Your task to perform on an android device: turn on location history Image 0: 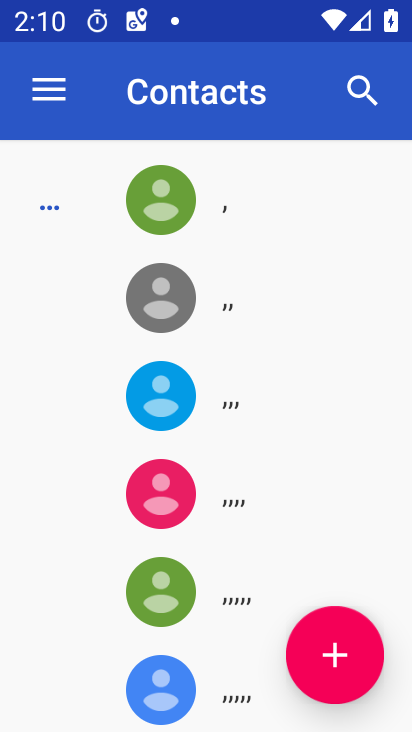
Step 0: press home button
Your task to perform on an android device: turn on location history Image 1: 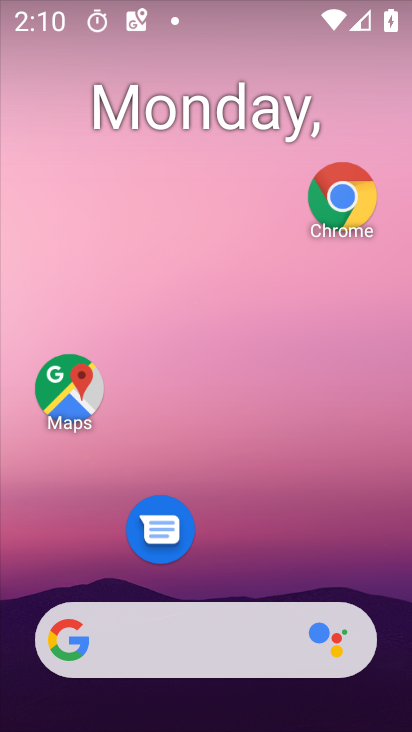
Step 1: drag from (241, 601) to (185, 85)
Your task to perform on an android device: turn on location history Image 2: 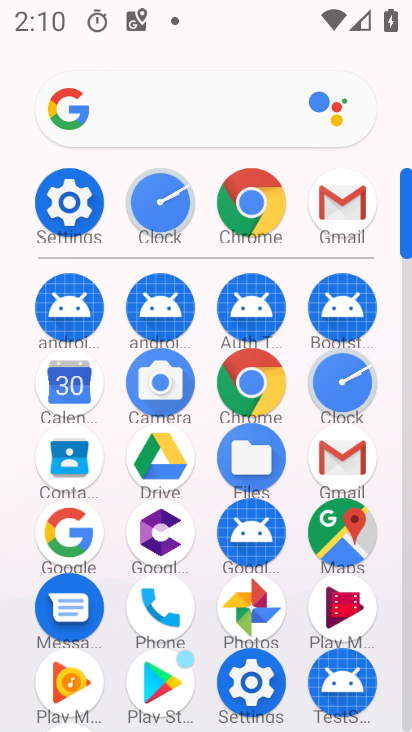
Step 2: click (71, 209)
Your task to perform on an android device: turn on location history Image 3: 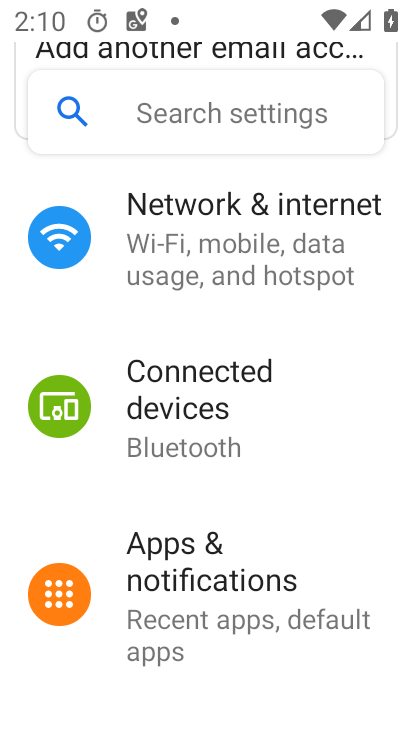
Step 3: drag from (190, 586) to (129, 148)
Your task to perform on an android device: turn on location history Image 4: 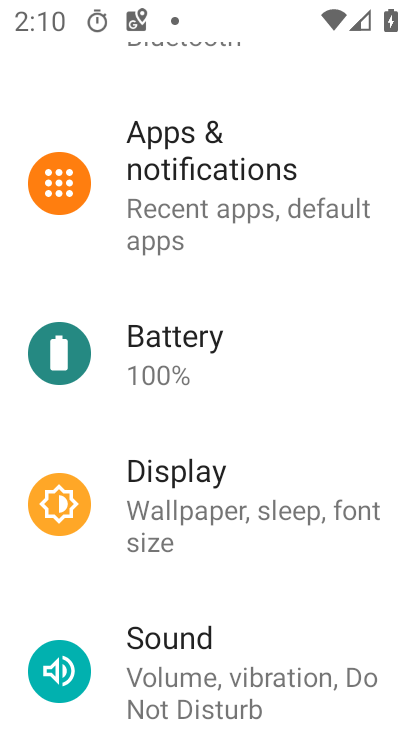
Step 4: drag from (239, 688) to (209, 188)
Your task to perform on an android device: turn on location history Image 5: 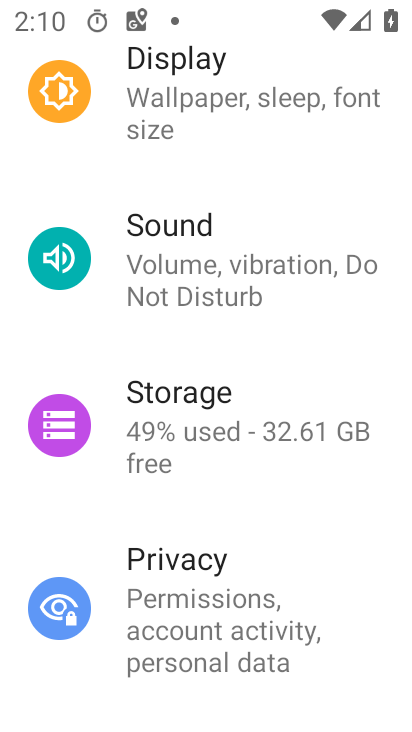
Step 5: drag from (258, 539) to (253, 74)
Your task to perform on an android device: turn on location history Image 6: 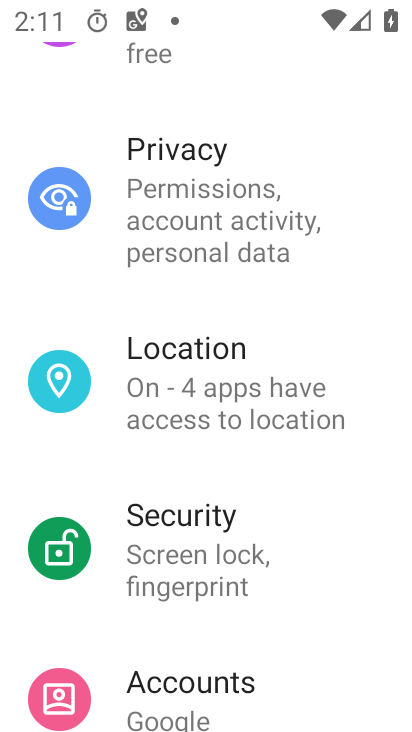
Step 6: click (246, 368)
Your task to perform on an android device: turn on location history Image 7: 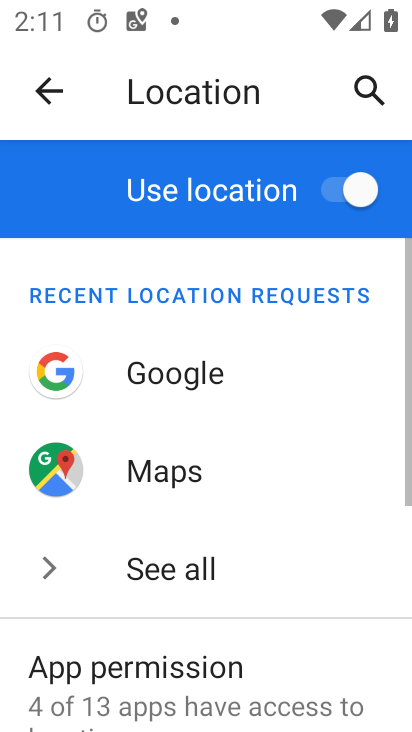
Step 7: drag from (251, 637) to (253, 248)
Your task to perform on an android device: turn on location history Image 8: 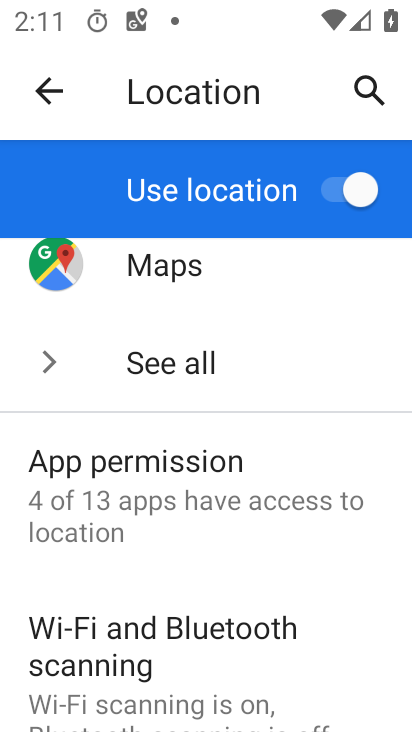
Step 8: drag from (229, 628) to (219, 239)
Your task to perform on an android device: turn on location history Image 9: 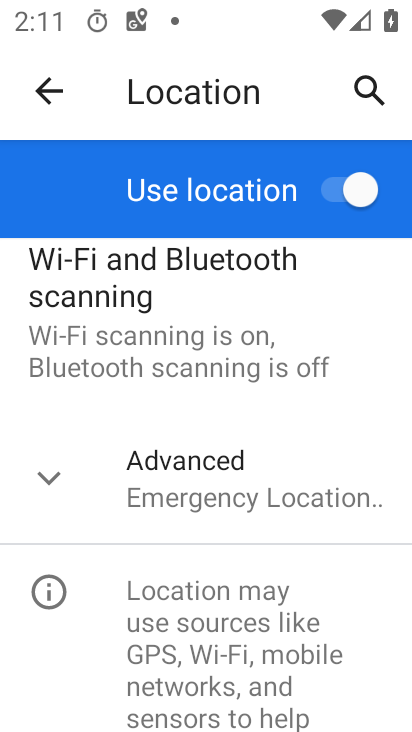
Step 9: click (237, 500)
Your task to perform on an android device: turn on location history Image 10: 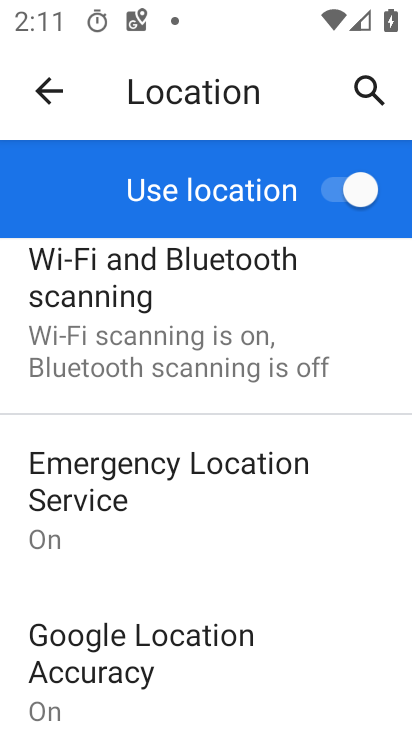
Step 10: drag from (190, 552) to (176, 151)
Your task to perform on an android device: turn on location history Image 11: 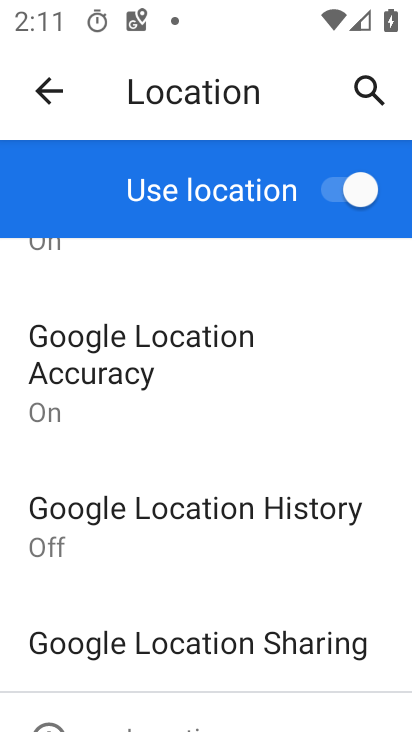
Step 11: click (208, 528)
Your task to perform on an android device: turn on location history Image 12: 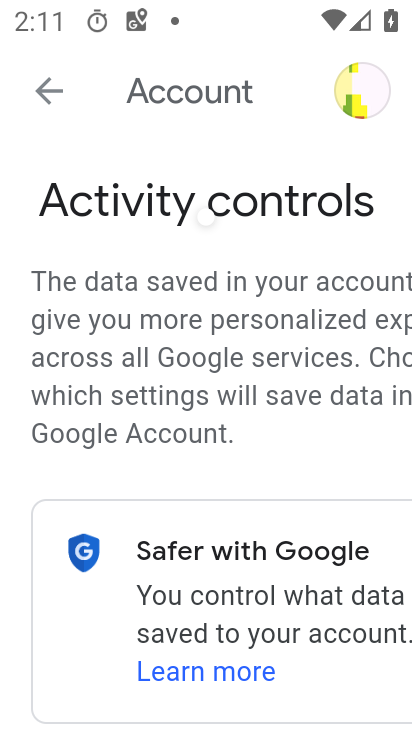
Step 12: drag from (343, 512) to (275, 6)
Your task to perform on an android device: turn on location history Image 13: 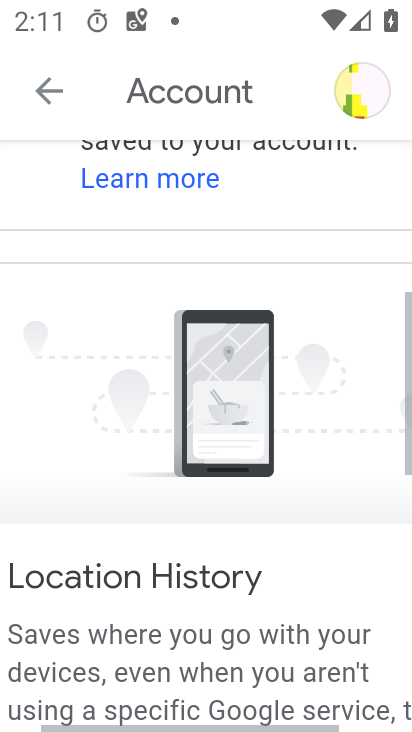
Step 13: drag from (331, 555) to (273, 1)
Your task to perform on an android device: turn on location history Image 14: 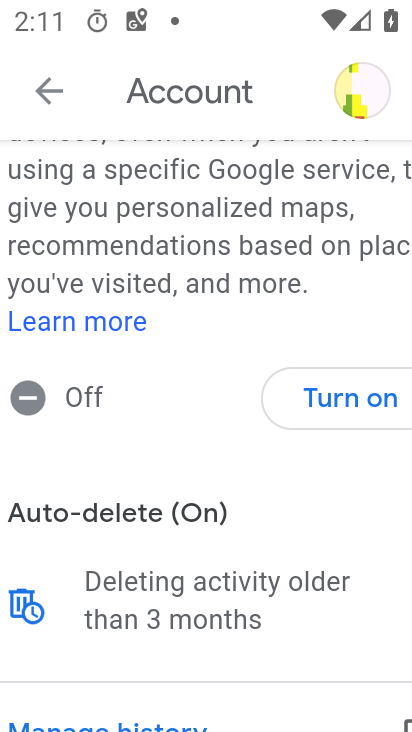
Step 14: click (348, 410)
Your task to perform on an android device: turn on location history Image 15: 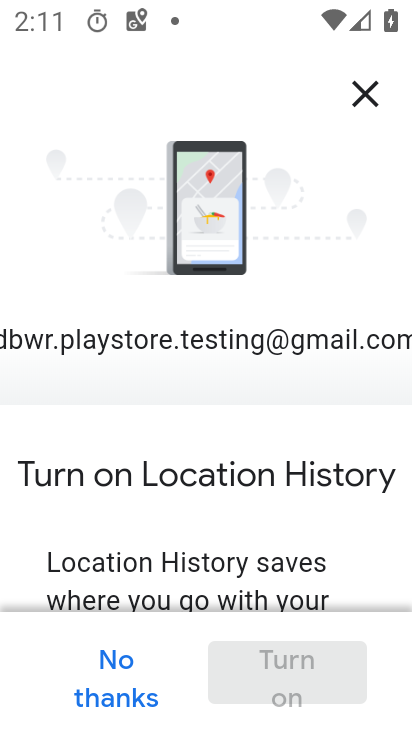
Step 15: drag from (286, 566) to (259, 41)
Your task to perform on an android device: turn on location history Image 16: 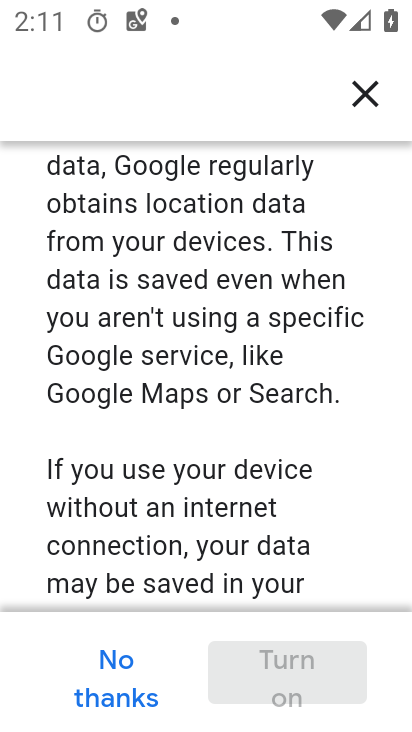
Step 16: drag from (286, 488) to (269, 19)
Your task to perform on an android device: turn on location history Image 17: 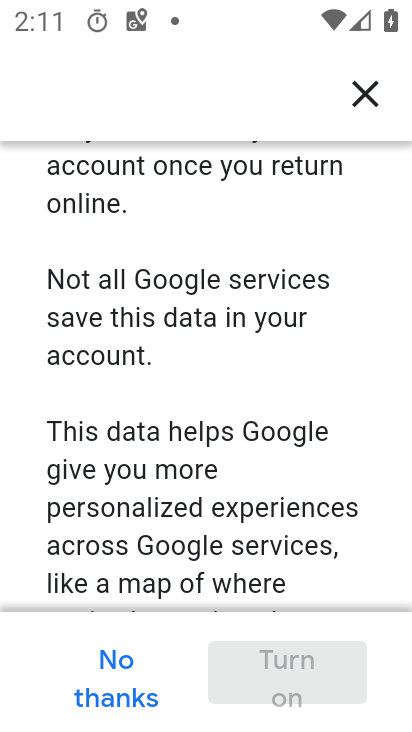
Step 17: drag from (299, 466) to (295, 4)
Your task to perform on an android device: turn on location history Image 18: 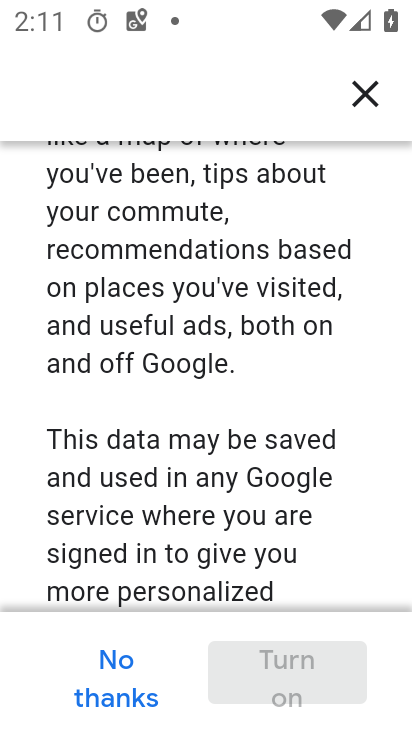
Step 18: drag from (275, 392) to (241, 36)
Your task to perform on an android device: turn on location history Image 19: 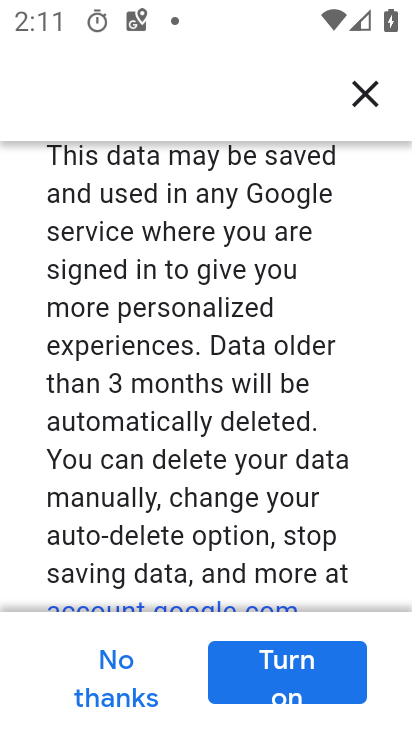
Step 19: click (318, 689)
Your task to perform on an android device: turn on location history Image 20: 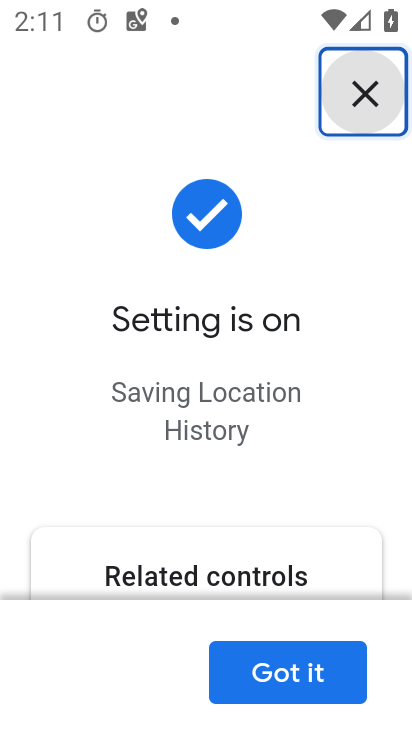
Step 20: click (327, 675)
Your task to perform on an android device: turn on location history Image 21: 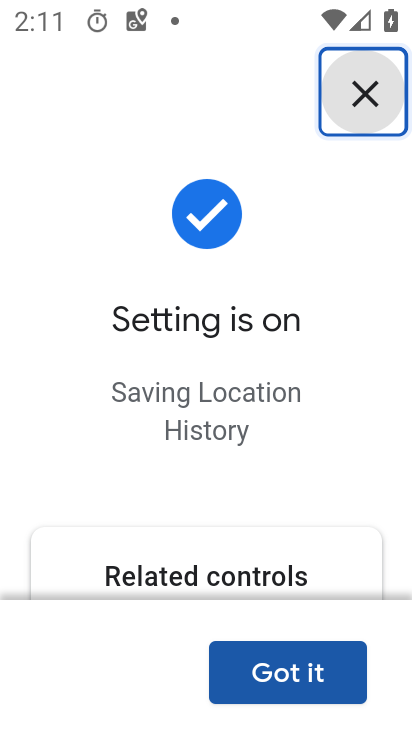
Step 21: task complete